Your task to perform on an android device: Open display settings Image 0: 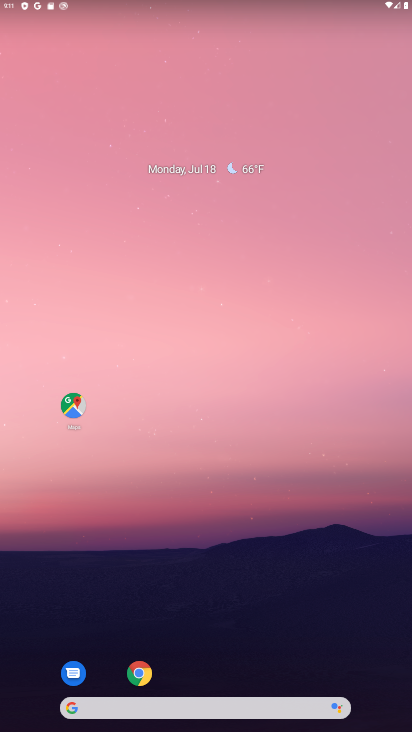
Step 0: drag from (236, 639) to (280, 0)
Your task to perform on an android device: Open display settings Image 1: 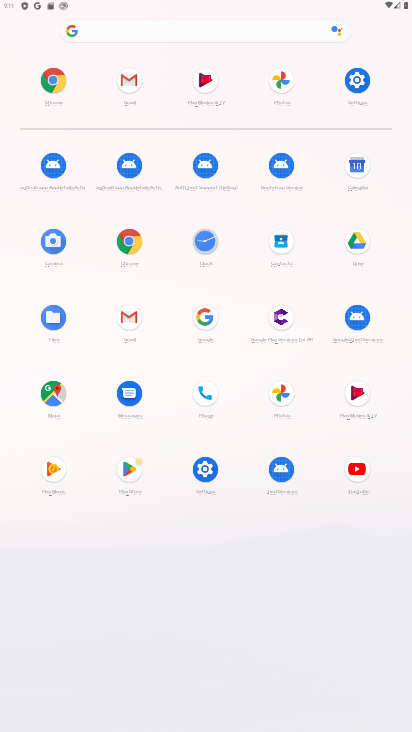
Step 1: click (352, 80)
Your task to perform on an android device: Open display settings Image 2: 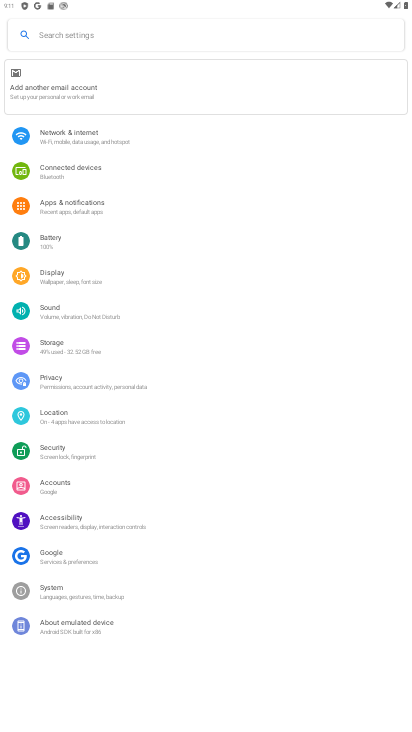
Step 2: click (72, 271)
Your task to perform on an android device: Open display settings Image 3: 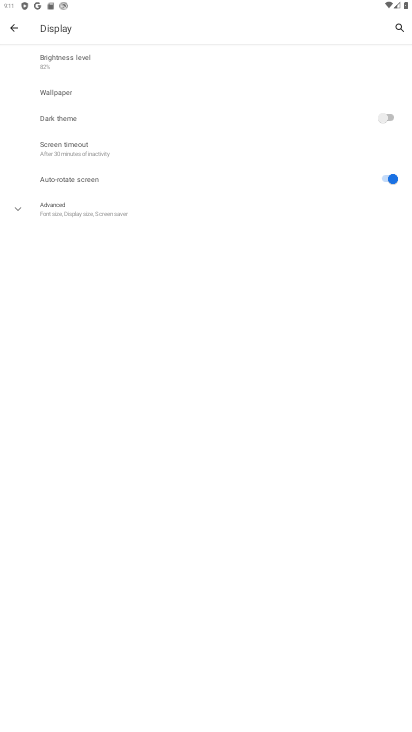
Step 3: task complete